Your task to perform on an android device: Go to ESPN.com Image 0: 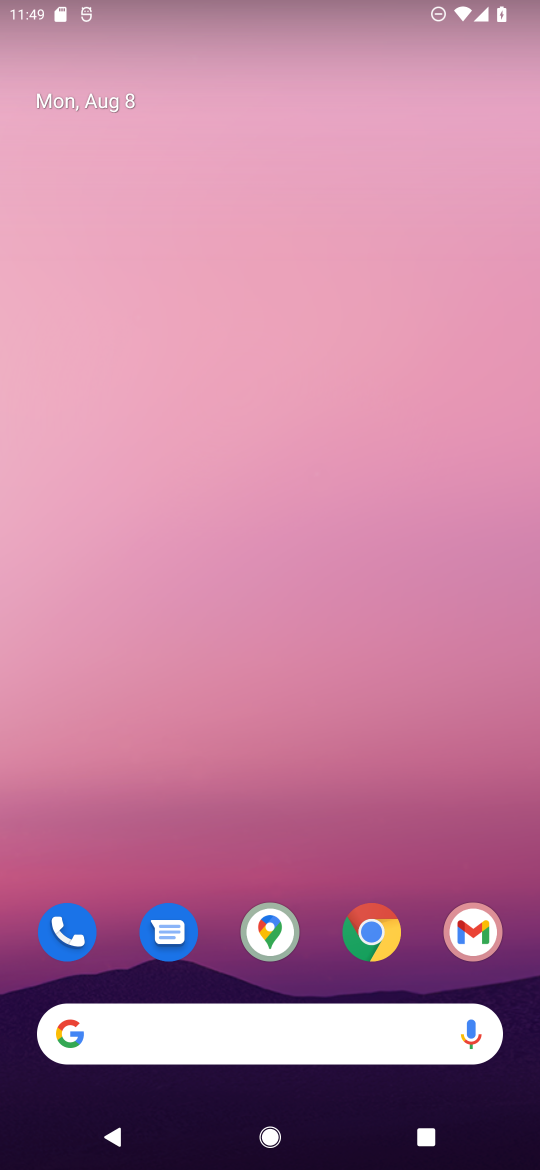
Step 0: click (321, 1027)
Your task to perform on an android device: Go to ESPN.com Image 1: 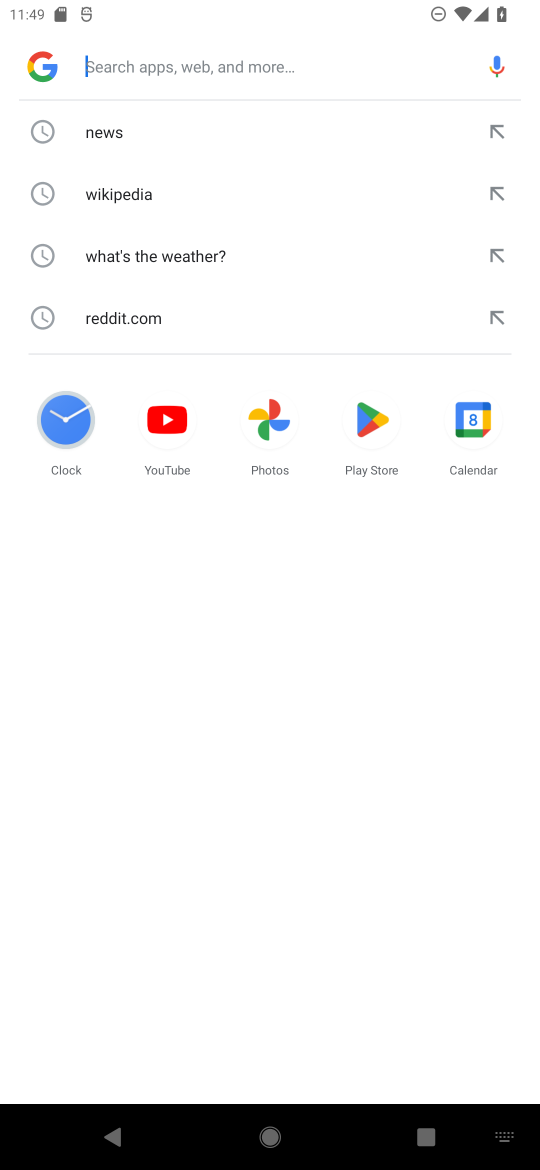
Step 1: type "espn"
Your task to perform on an android device: Go to ESPN.com Image 2: 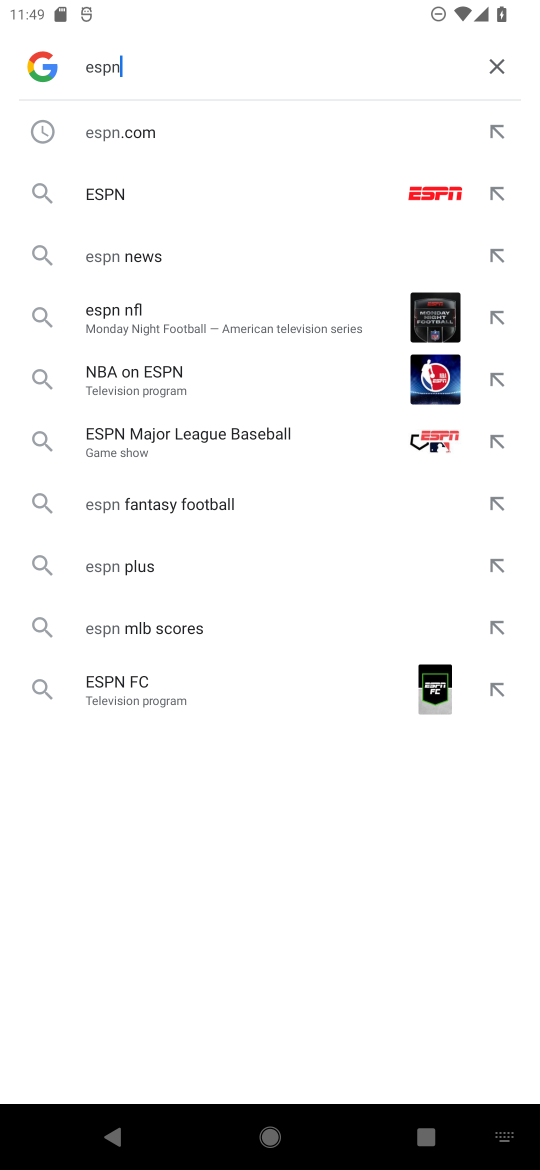
Step 2: click (205, 138)
Your task to perform on an android device: Go to ESPN.com Image 3: 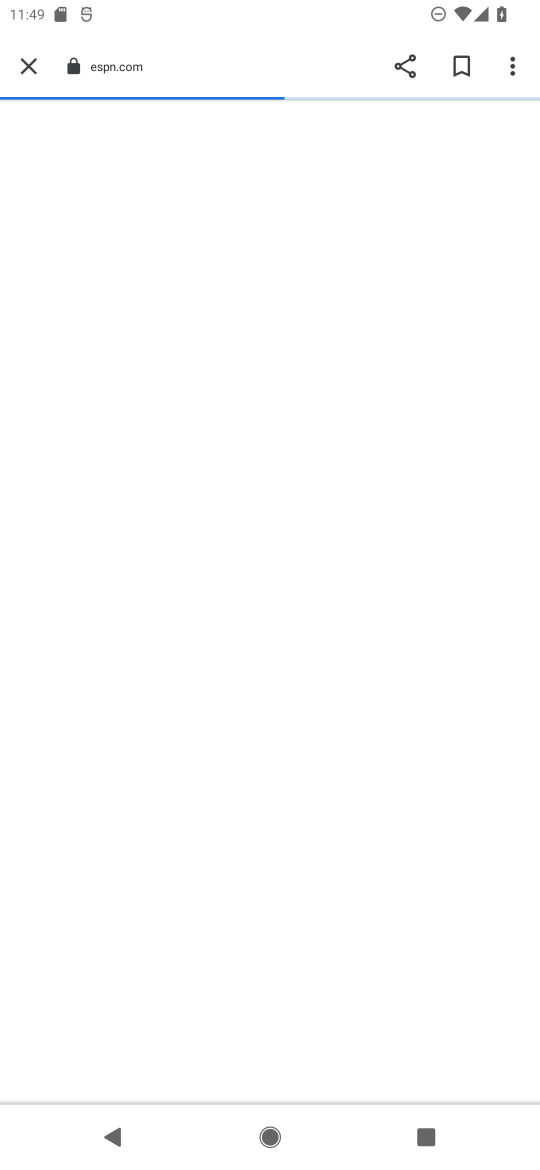
Step 3: click (187, 138)
Your task to perform on an android device: Go to ESPN.com Image 4: 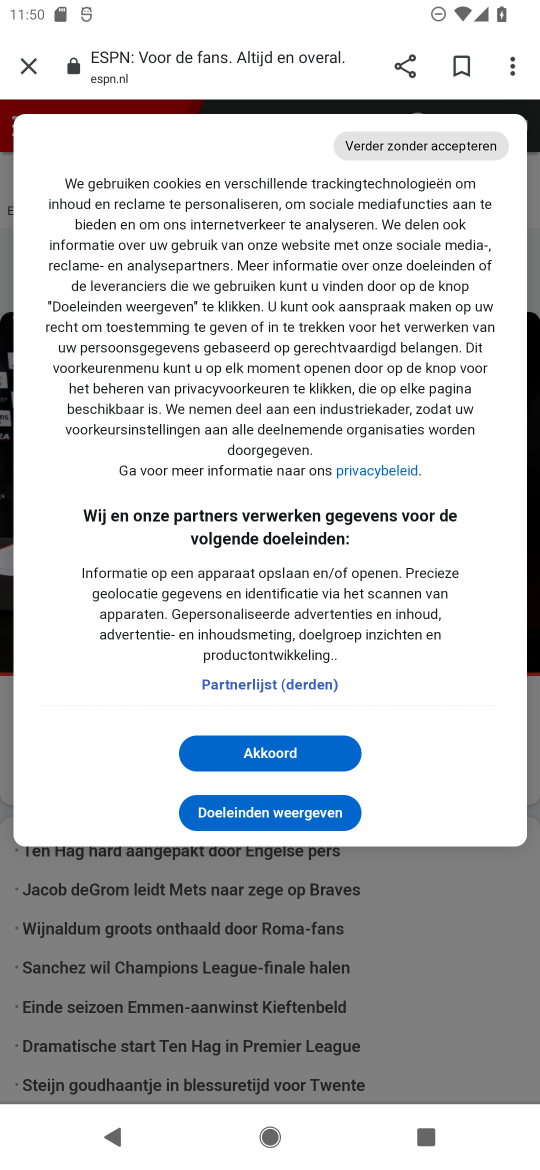
Step 4: task complete